Your task to perform on an android device: search for starred emails in the gmail app Image 0: 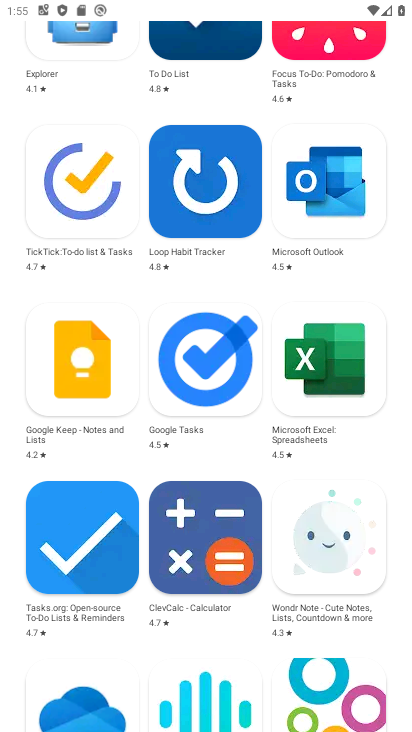
Step 0: press home button
Your task to perform on an android device: search for starred emails in the gmail app Image 1: 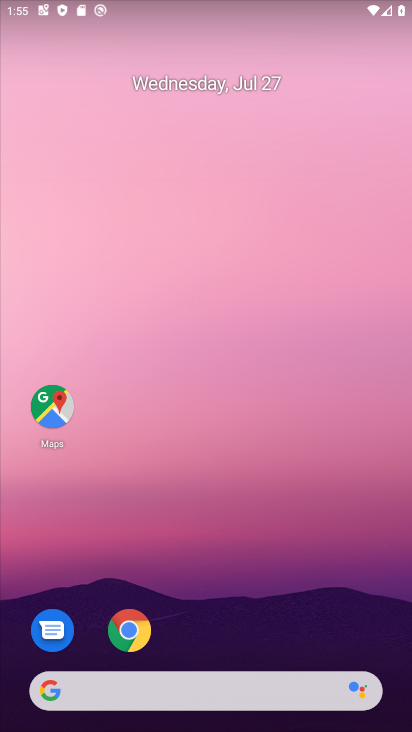
Step 1: drag from (368, 635) to (302, 120)
Your task to perform on an android device: search for starred emails in the gmail app Image 2: 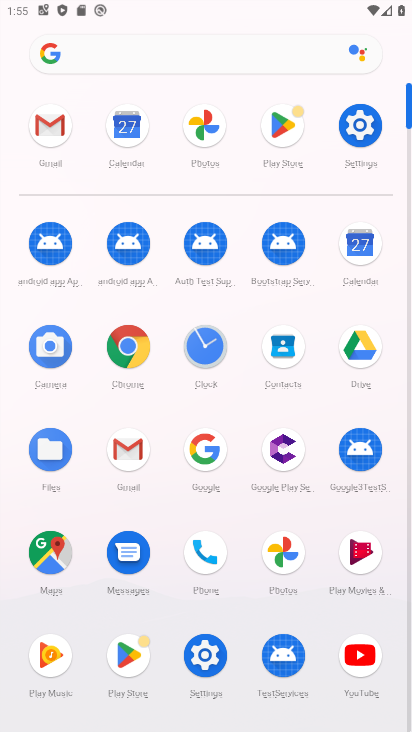
Step 2: click (127, 449)
Your task to perform on an android device: search for starred emails in the gmail app Image 3: 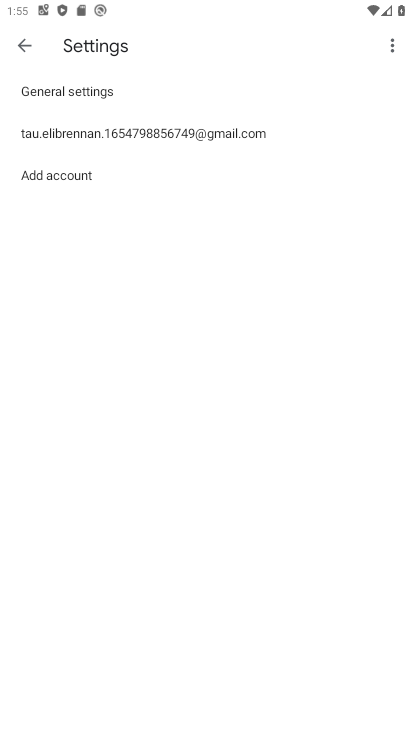
Step 3: press back button
Your task to perform on an android device: search for starred emails in the gmail app Image 4: 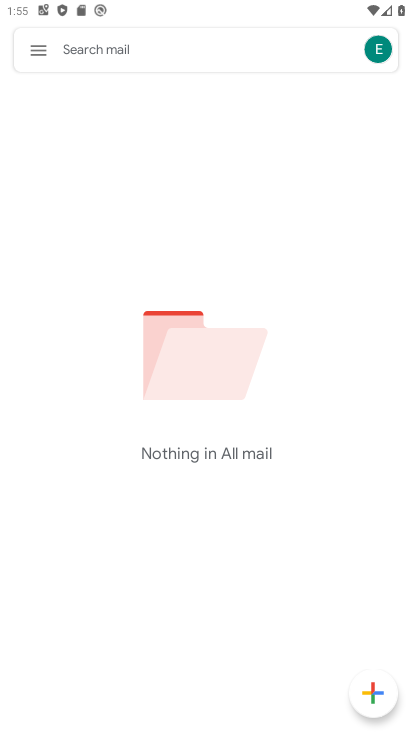
Step 4: click (40, 48)
Your task to perform on an android device: search for starred emails in the gmail app Image 5: 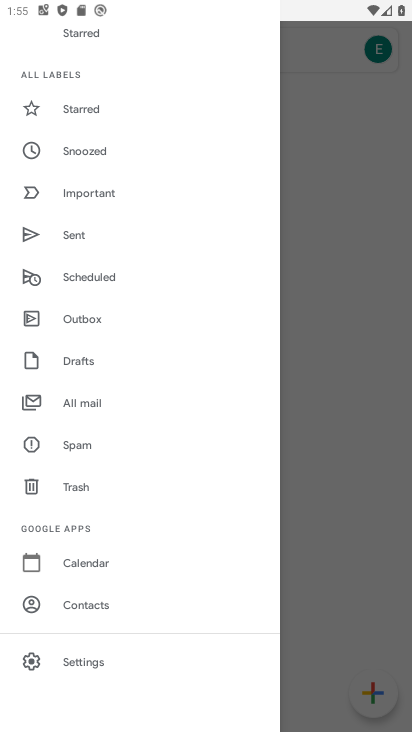
Step 5: click (85, 104)
Your task to perform on an android device: search for starred emails in the gmail app Image 6: 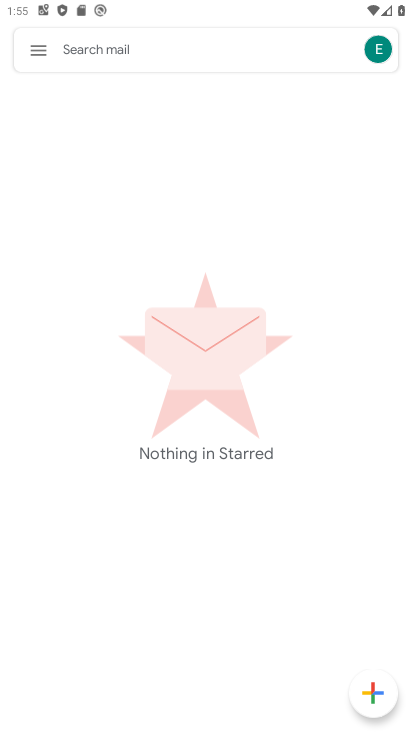
Step 6: task complete